Your task to perform on an android device: turn off notifications settings in the gmail app Image 0: 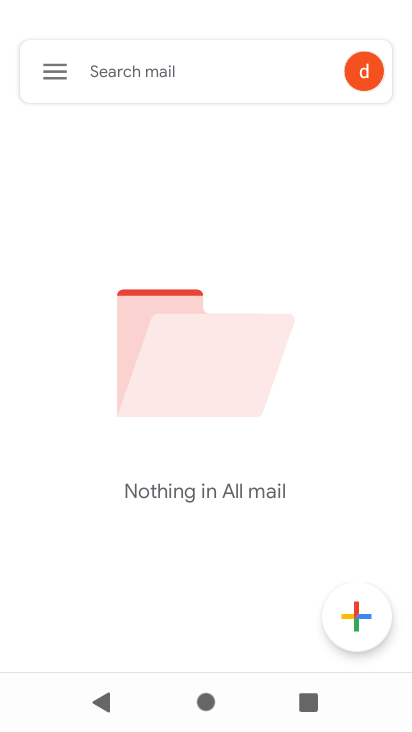
Step 0: click (50, 68)
Your task to perform on an android device: turn off notifications settings in the gmail app Image 1: 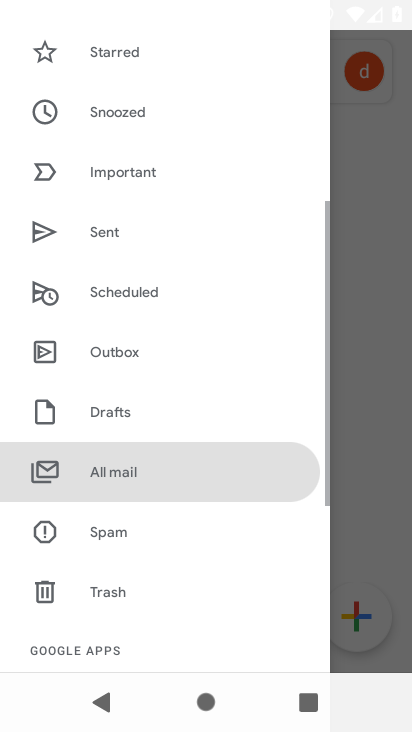
Step 1: drag from (174, 553) to (154, 219)
Your task to perform on an android device: turn off notifications settings in the gmail app Image 2: 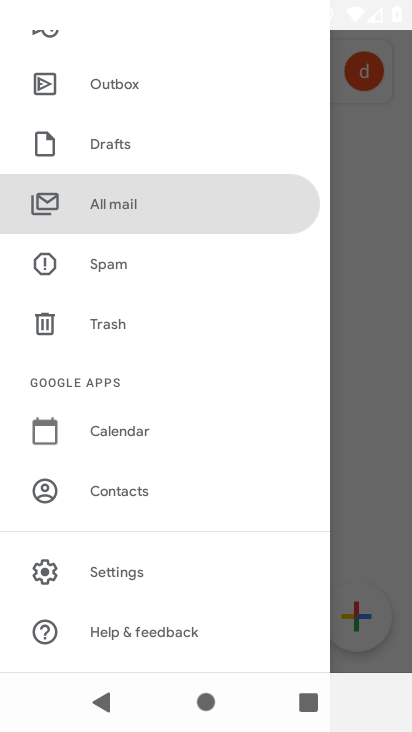
Step 2: click (139, 559)
Your task to perform on an android device: turn off notifications settings in the gmail app Image 3: 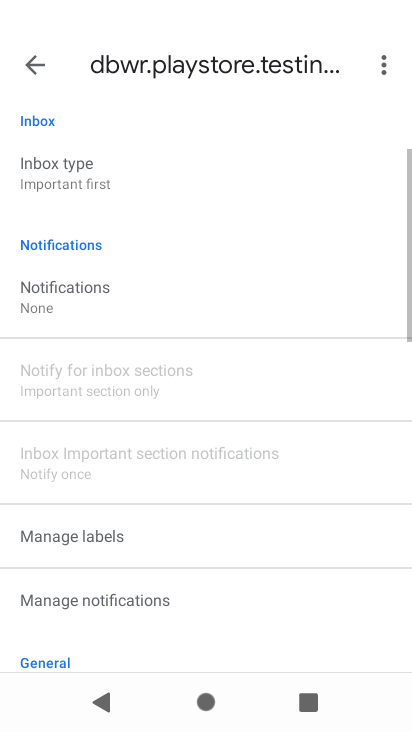
Step 3: click (105, 289)
Your task to perform on an android device: turn off notifications settings in the gmail app Image 4: 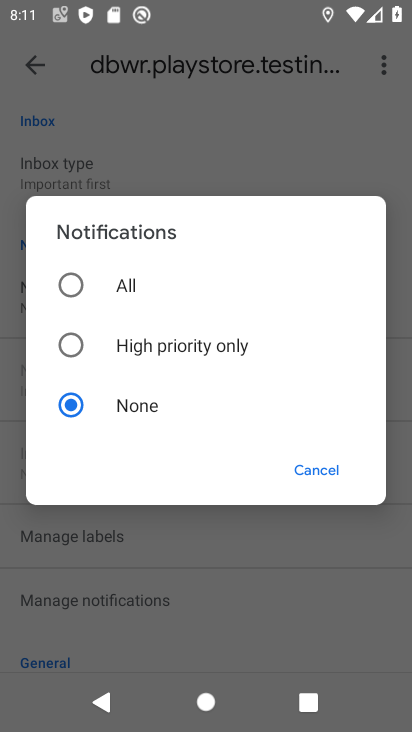
Step 4: task complete